Your task to perform on an android device: Go to battery settings Image 0: 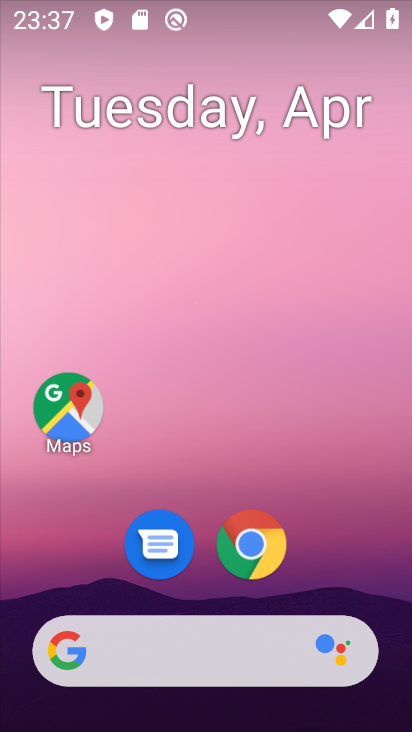
Step 0: drag from (357, 538) to (389, 99)
Your task to perform on an android device: Go to battery settings Image 1: 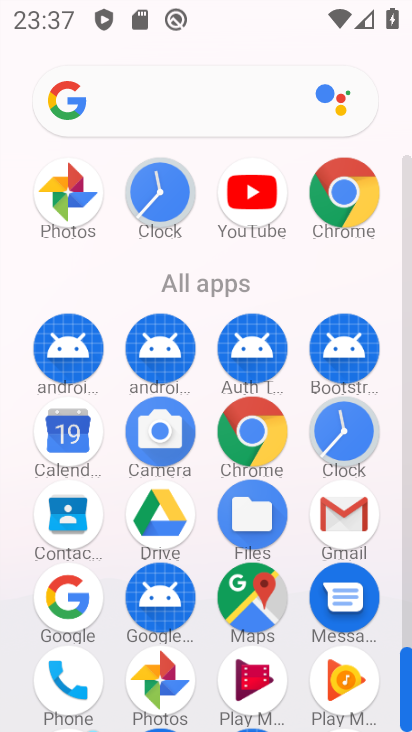
Step 1: drag from (393, 552) to (411, 223)
Your task to perform on an android device: Go to battery settings Image 2: 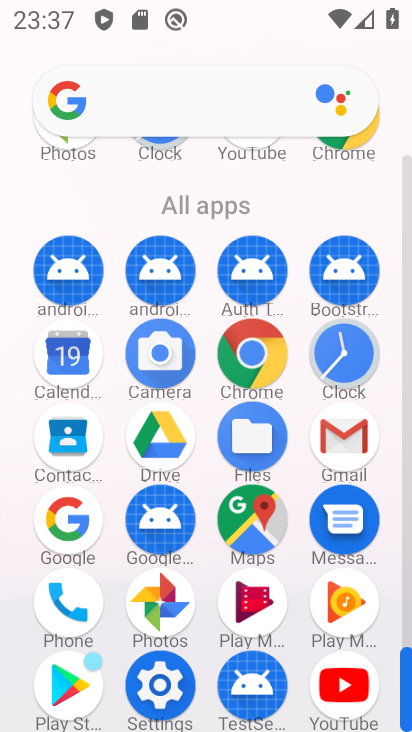
Step 2: click (168, 684)
Your task to perform on an android device: Go to battery settings Image 3: 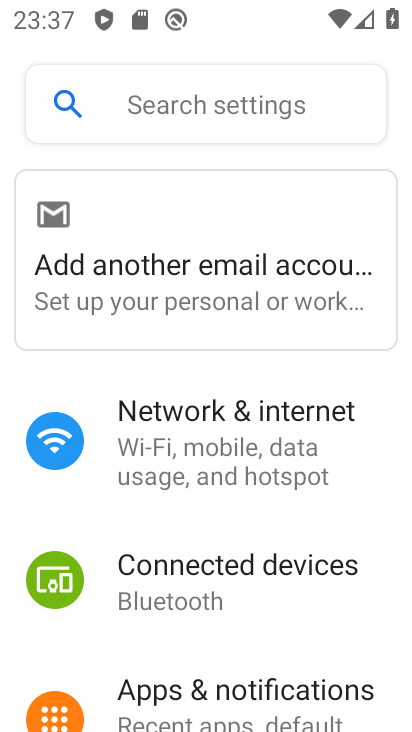
Step 3: drag from (388, 624) to (385, 460)
Your task to perform on an android device: Go to battery settings Image 4: 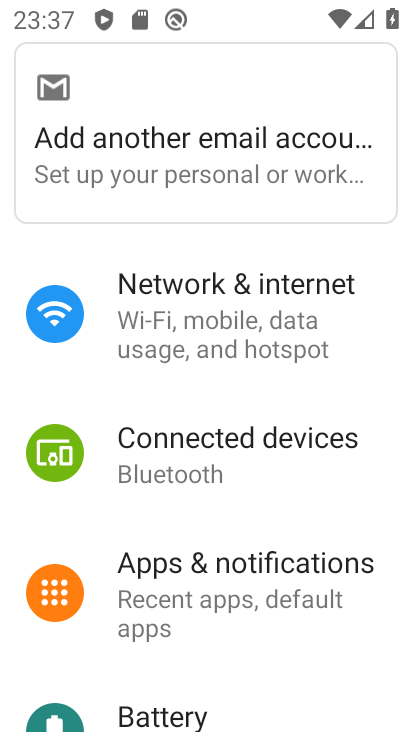
Step 4: drag from (388, 665) to (382, 488)
Your task to perform on an android device: Go to battery settings Image 5: 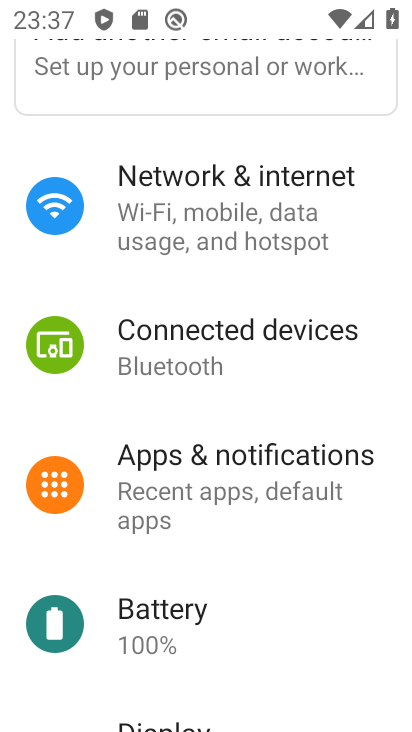
Step 5: drag from (372, 596) to (391, 394)
Your task to perform on an android device: Go to battery settings Image 6: 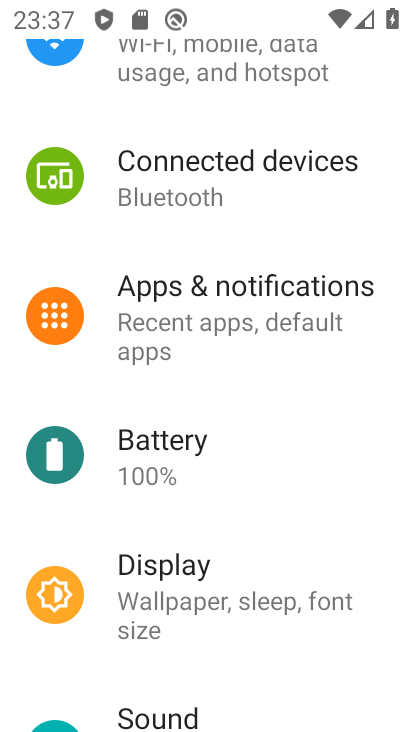
Step 6: drag from (365, 617) to (364, 460)
Your task to perform on an android device: Go to battery settings Image 7: 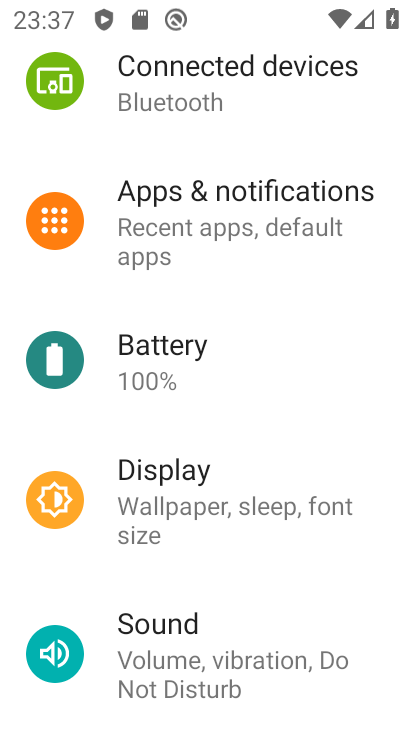
Step 7: click (191, 350)
Your task to perform on an android device: Go to battery settings Image 8: 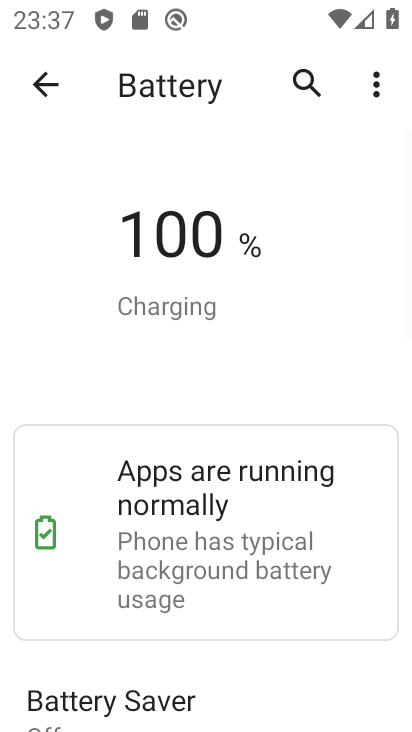
Step 8: task complete